Your task to perform on an android device: Open Google Chrome and click the shortcut for Amazon.com Image 0: 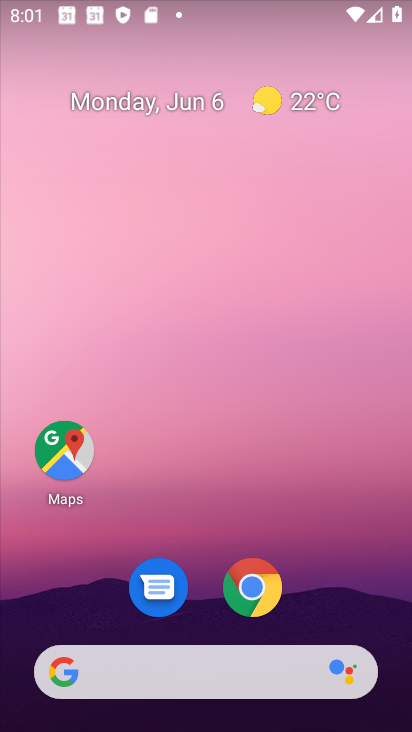
Step 0: click (257, 590)
Your task to perform on an android device: Open Google Chrome and click the shortcut for Amazon.com Image 1: 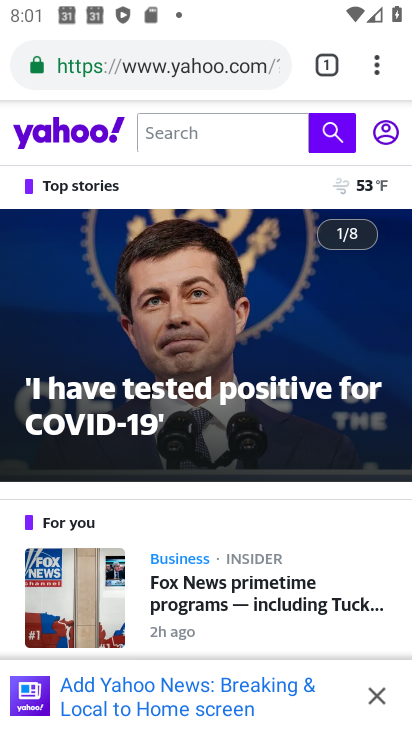
Step 1: click (333, 62)
Your task to perform on an android device: Open Google Chrome and click the shortcut for Amazon.com Image 2: 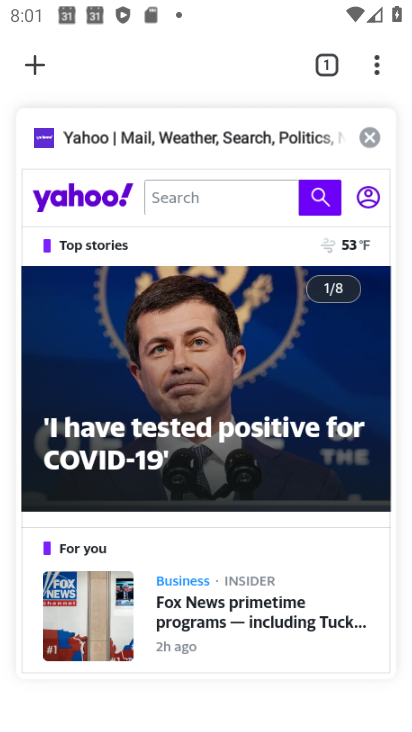
Step 2: click (374, 135)
Your task to perform on an android device: Open Google Chrome and click the shortcut for Amazon.com Image 3: 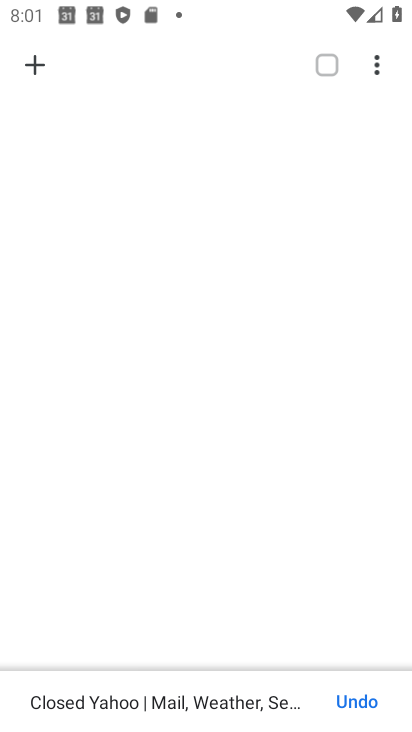
Step 3: click (28, 60)
Your task to perform on an android device: Open Google Chrome and click the shortcut for Amazon.com Image 4: 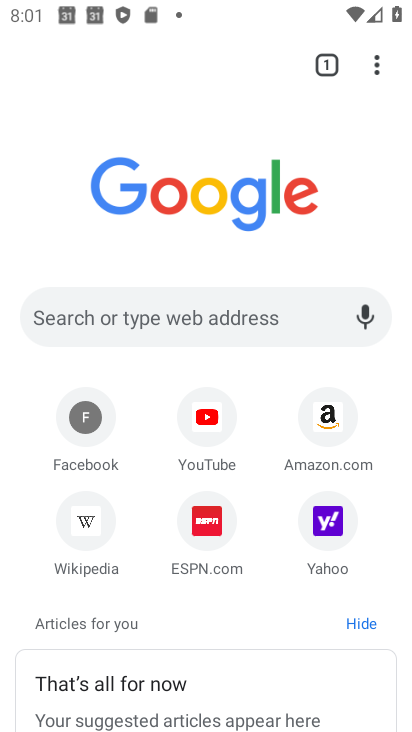
Step 4: click (326, 424)
Your task to perform on an android device: Open Google Chrome and click the shortcut for Amazon.com Image 5: 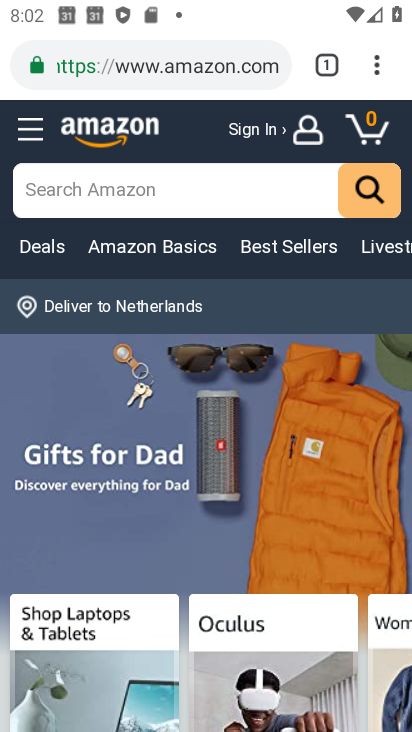
Step 5: task complete